Your task to perform on an android device: What is the recent news? Image 0: 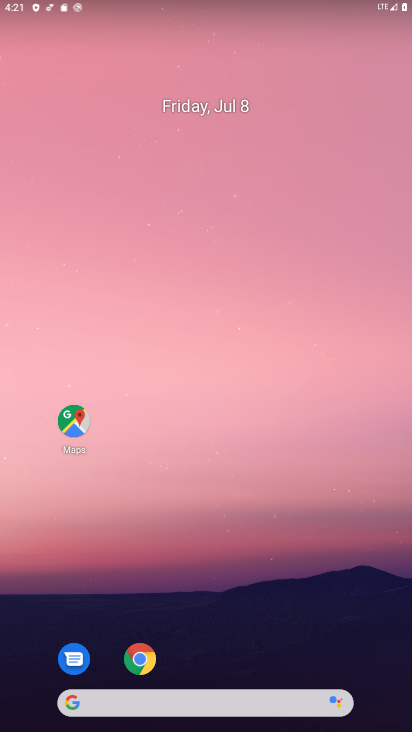
Step 0: click (146, 664)
Your task to perform on an android device: What is the recent news? Image 1: 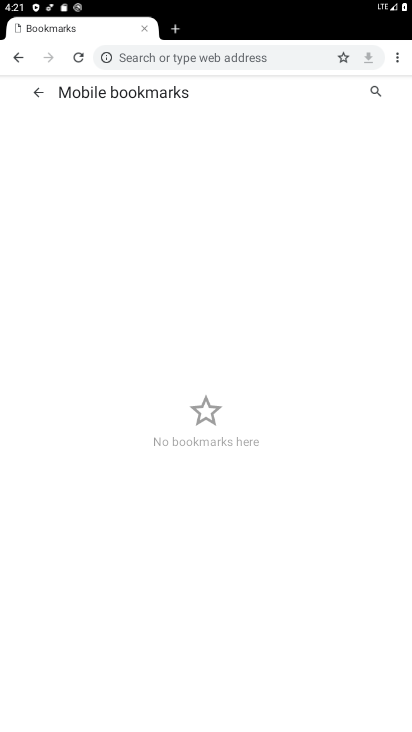
Step 1: click (228, 49)
Your task to perform on an android device: What is the recent news? Image 2: 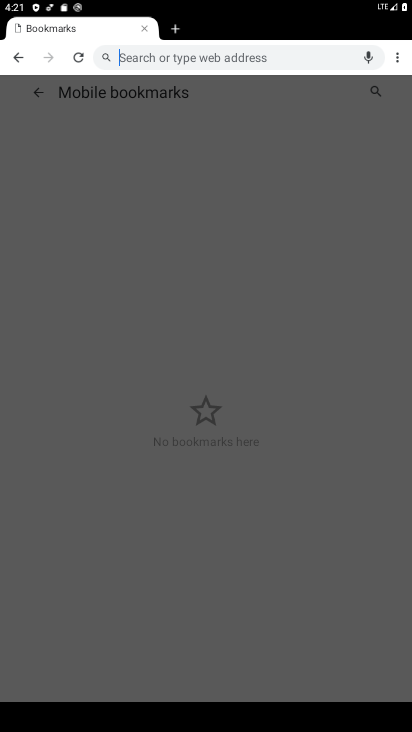
Step 2: type "What is the recent news?"
Your task to perform on an android device: What is the recent news? Image 3: 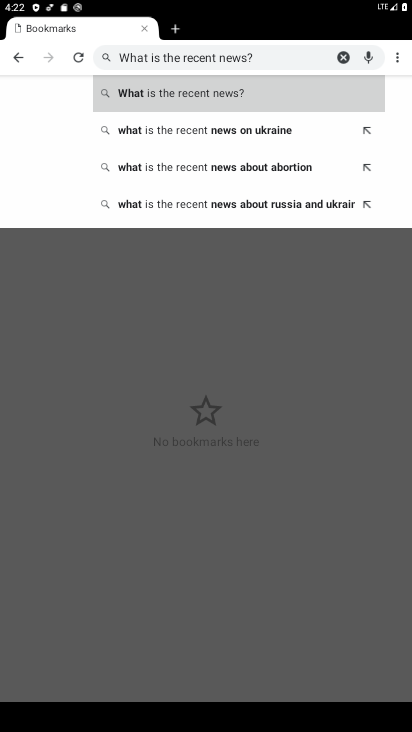
Step 3: click (230, 94)
Your task to perform on an android device: What is the recent news? Image 4: 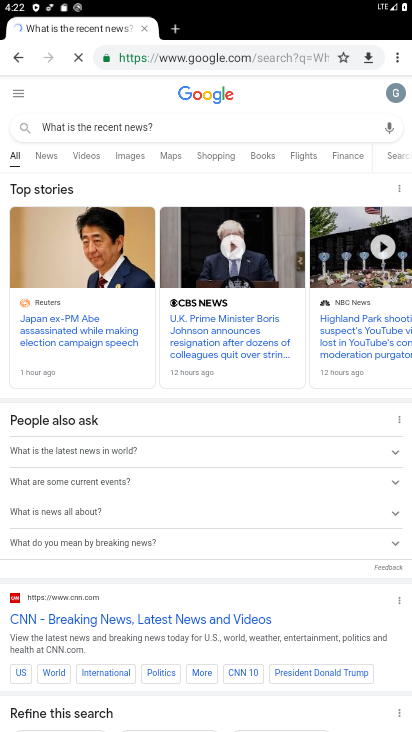
Step 4: task complete